Your task to perform on an android device: Clear the shopping cart on target.com. Search for "macbook pro 15 inch" on target.com, select the first entry, add it to the cart, then select checkout. Image 0: 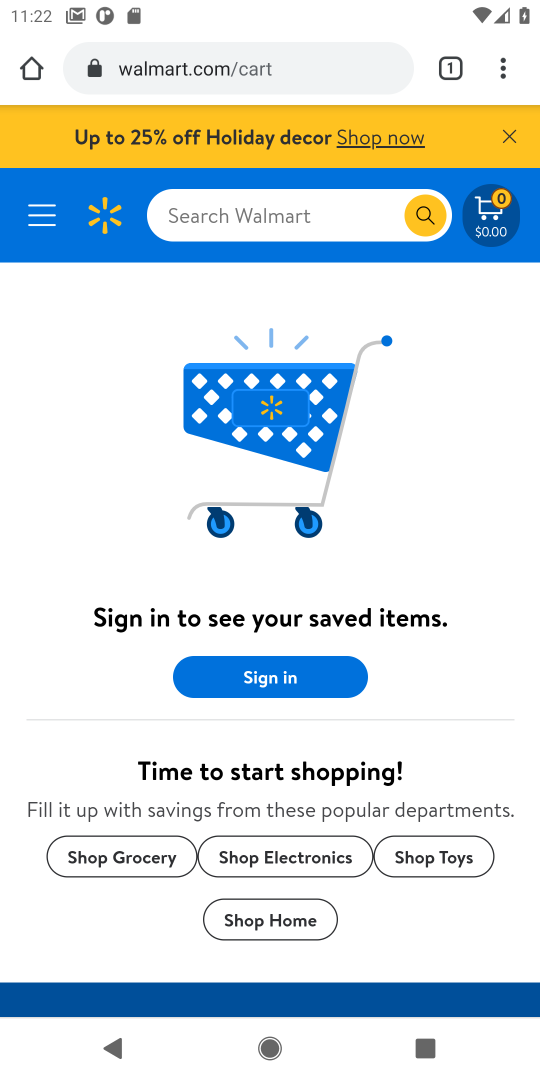
Step 0: click (197, 73)
Your task to perform on an android device: Clear the shopping cart on target.com. Search for "macbook pro 15 inch" on target.com, select the first entry, add it to the cart, then select checkout. Image 1: 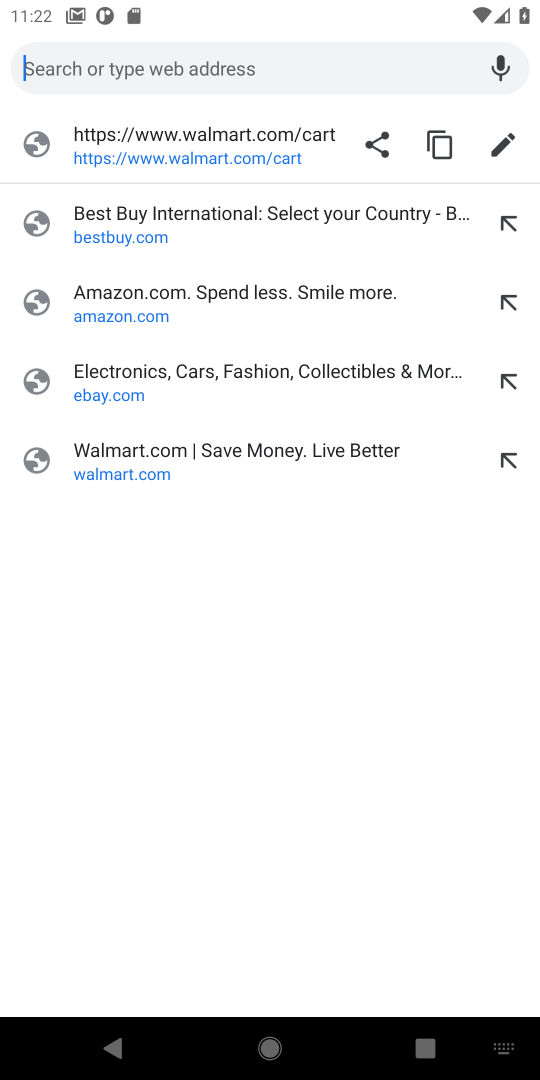
Step 1: type "target.com"
Your task to perform on an android device: Clear the shopping cart on target.com. Search for "macbook pro 15 inch" on target.com, select the first entry, add it to the cart, then select checkout. Image 2: 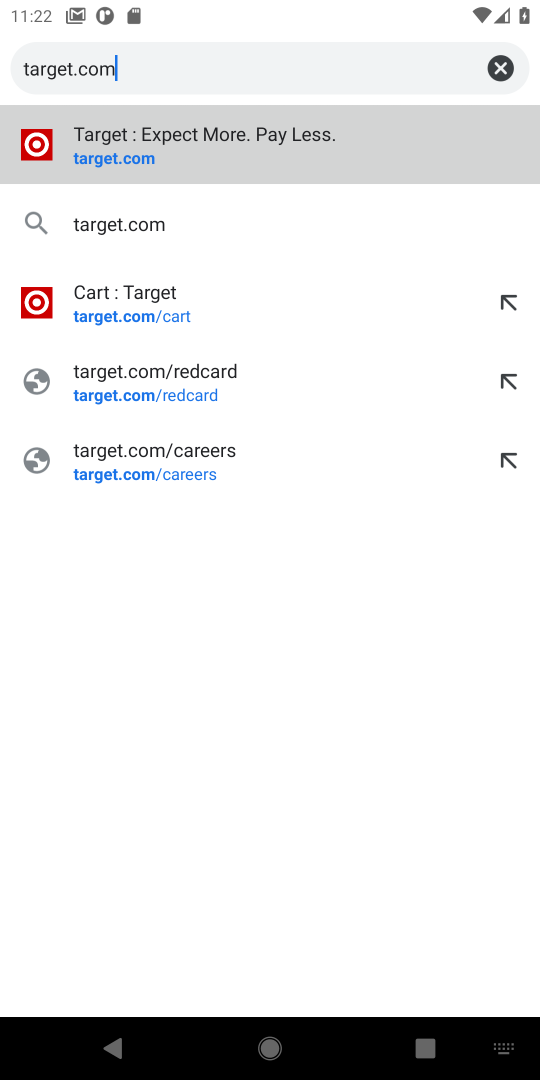
Step 2: click (113, 168)
Your task to perform on an android device: Clear the shopping cart on target.com. Search for "macbook pro 15 inch" on target.com, select the first entry, add it to the cart, then select checkout. Image 3: 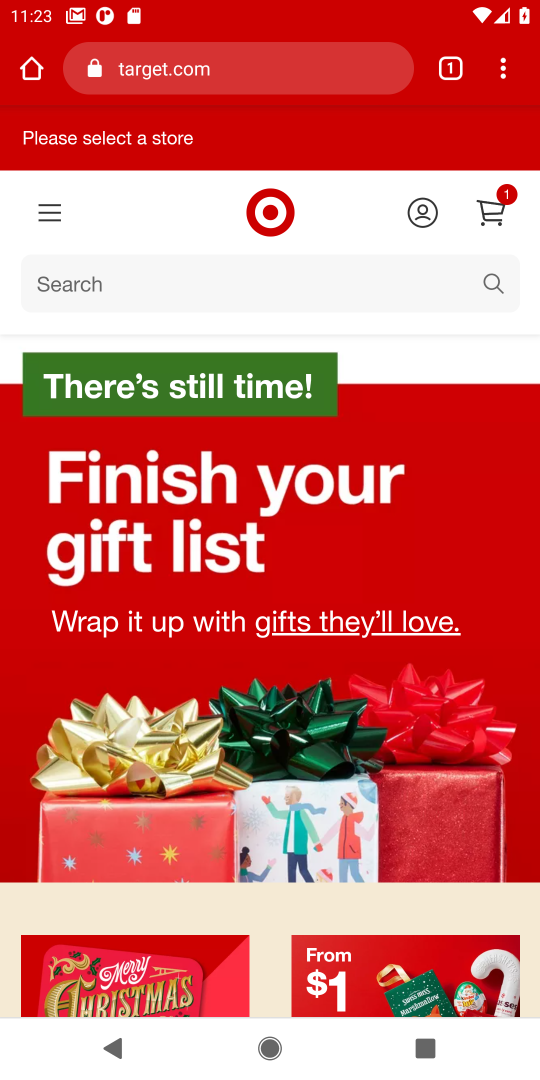
Step 3: click (494, 216)
Your task to perform on an android device: Clear the shopping cart on target.com. Search for "macbook pro 15 inch" on target.com, select the first entry, add it to the cart, then select checkout. Image 4: 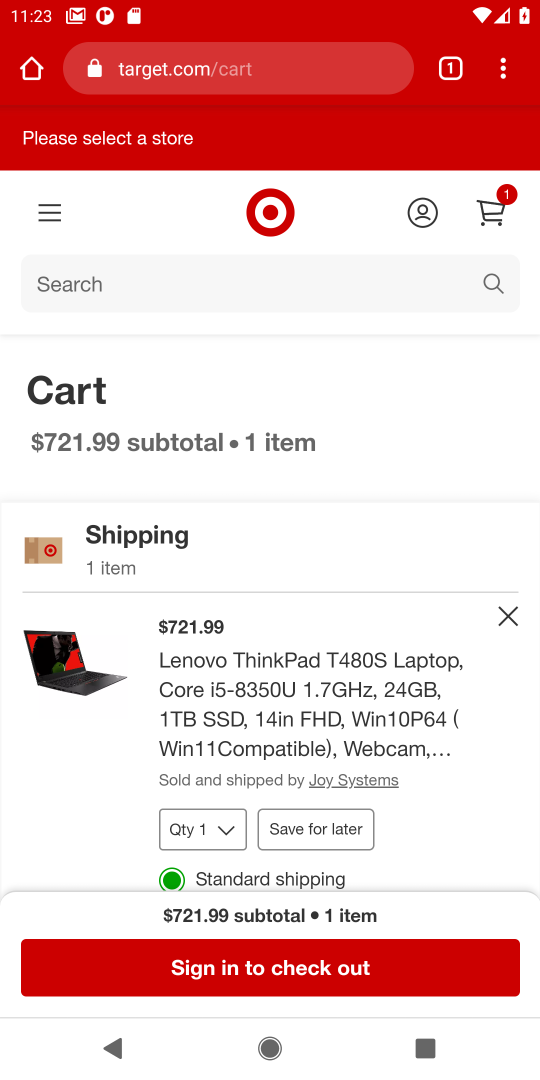
Step 4: click (501, 624)
Your task to perform on an android device: Clear the shopping cart on target.com. Search for "macbook pro 15 inch" on target.com, select the first entry, add it to the cart, then select checkout. Image 5: 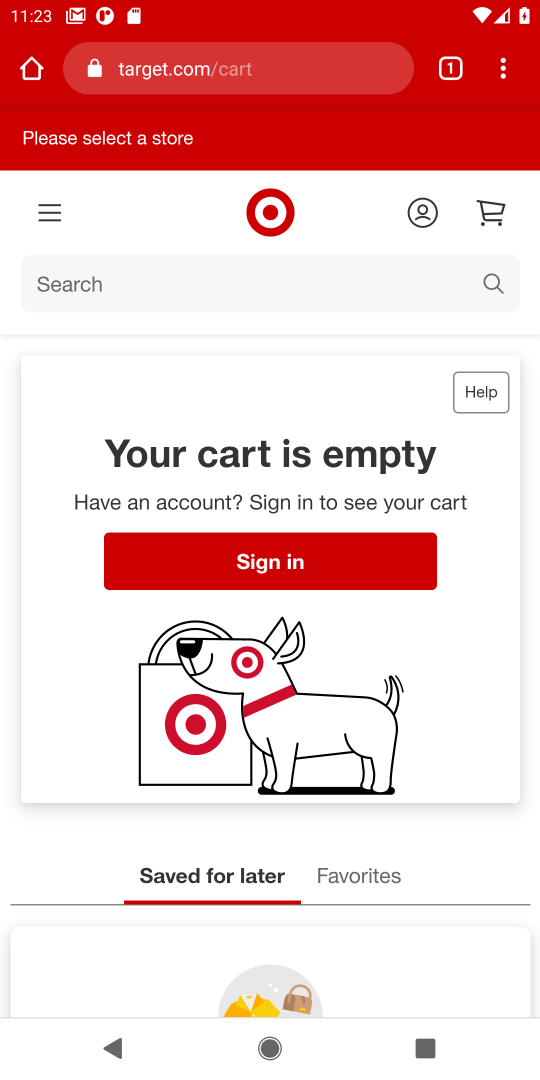
Step 5: click (82, 289)
Your task to perform on an android device: Clear the shopping cart on target.com. Search for "macbook pro 15 inch" on target.com, select the first entry, add it to the cart, then select checkout. Image 6: 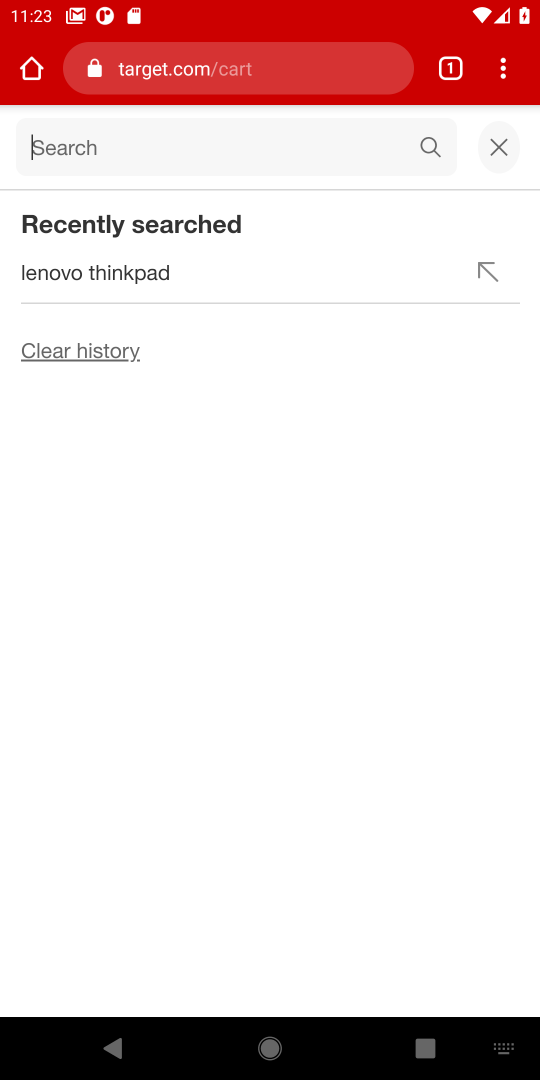
Step 6: type "macbook pro 15 inch"
Your task to perform on an android device: Clear the shopping cart on target.com. Search for "macbook pro 15 inch" on target.com, select the first entry, add it to the cart, then select checkout. Image 7: 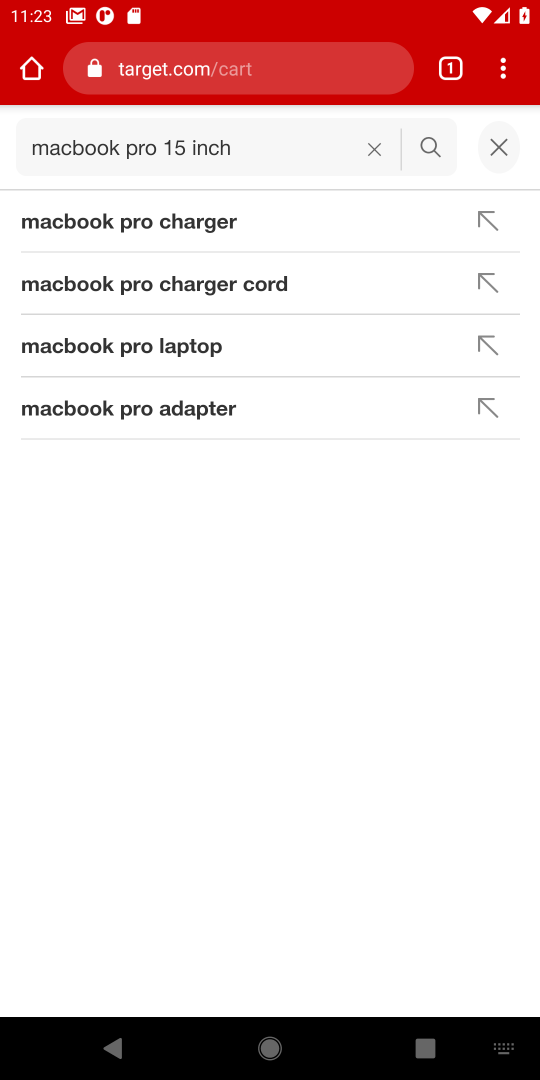
Step 7: click (434, 151)
Your task to perform on an android device: Clear the shopping cart on target.com. Search for "macbook pro 15 inch" on target.com, select the first entry, add it to the cart, then select checkout. Image 8: 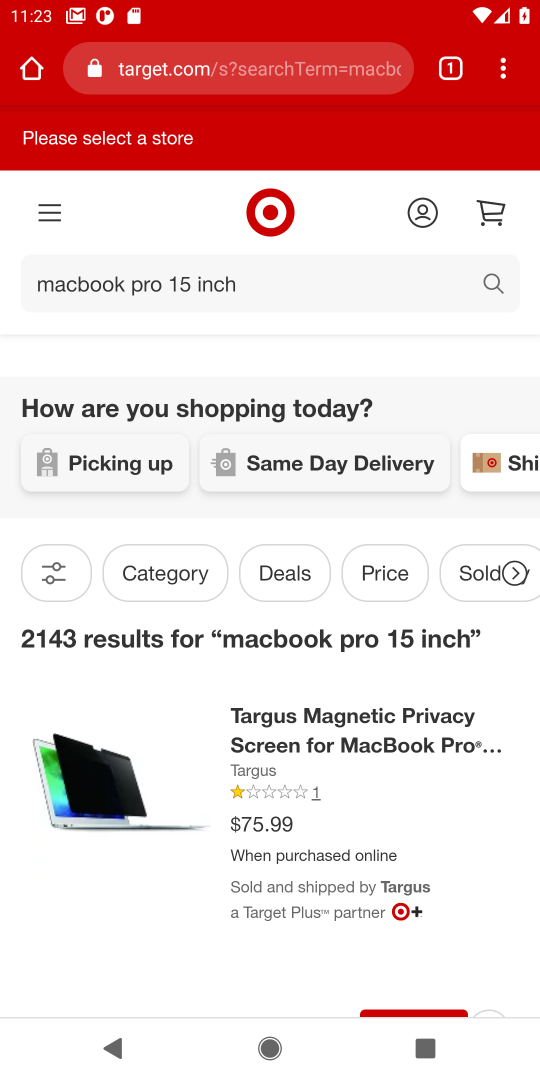
Step 8: drag from (189, 735) to (193, 455)
Your task to perform on an android device: Clear the shopping cart on target.com. Search for "macbook pro 15 inch" on target.com, select the first entry, add it to the cart, then select checkout. Image 9: 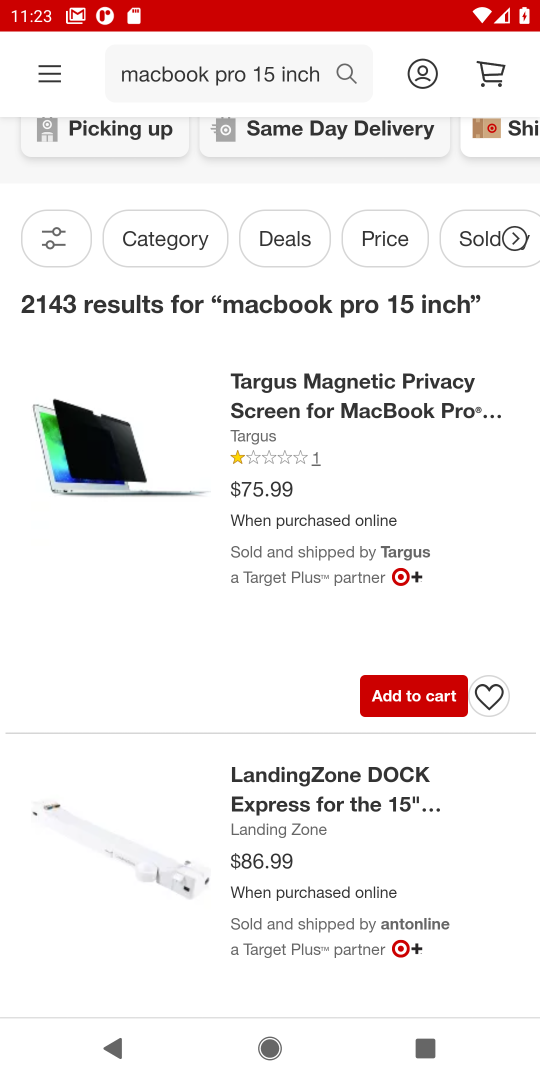
Step 9: click (355, 417)
Your task to perform on an android device: Clear the shopping cart on target.com. Search for "macbook pro 15 inch" on target.com, select the first entry, add it to the cart, then select checkout. Image 10: 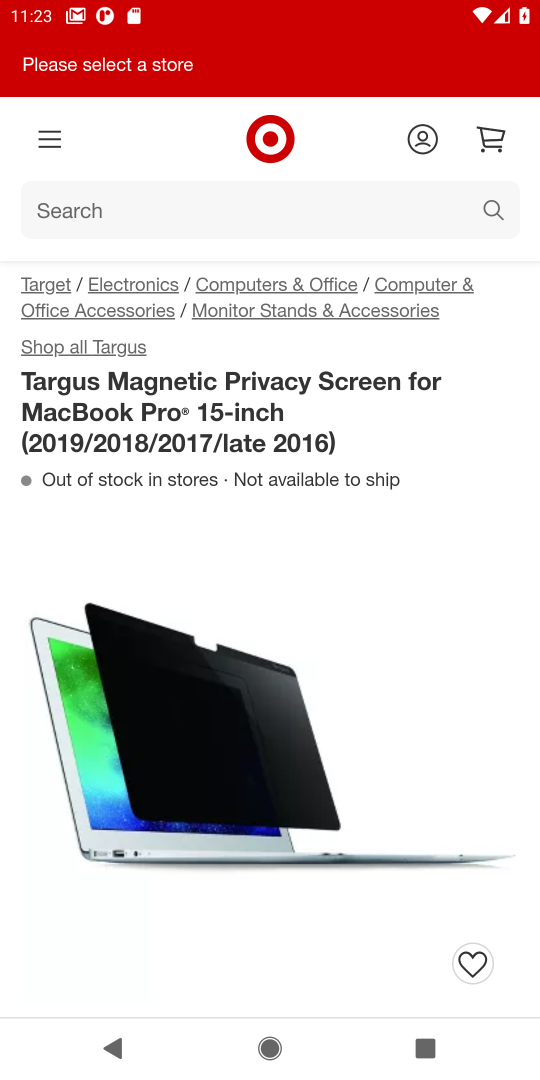
Step 10: drag from (297, 743) to (289, 482)
Your task to perform on an android device: Clear the shopping cart on target.com. Search for "macbook pro 15 inch" on target.com, select the first entry, add it to the cart, then select checkout. Image 11: 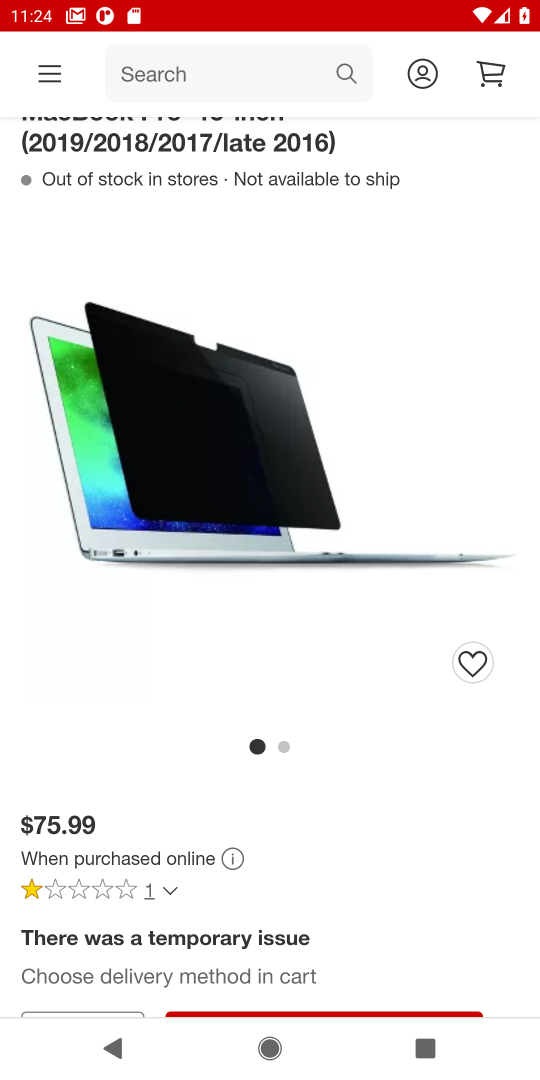
Step 11: drag from (287, 845) to (282, 507)
Your task to perform on an android device: Clear the shopping cart on target.com. Search for "macbook pro 15 inch" on target.com, select the first entry, add it to the cart, then select checkout. Image 12: 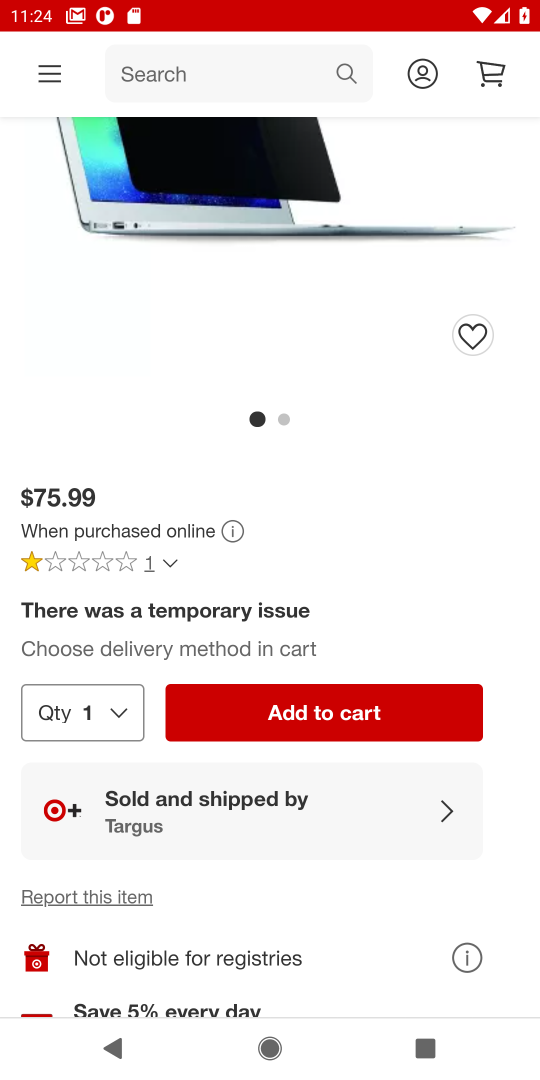
Step 12: click (316, 721)
Your task to perform on an android device: Clear the shopping cart on target.com. Search for "macbook pro 15 inch" on target.com, select the first entry, add it to the cart, then select checkout. Image 13: 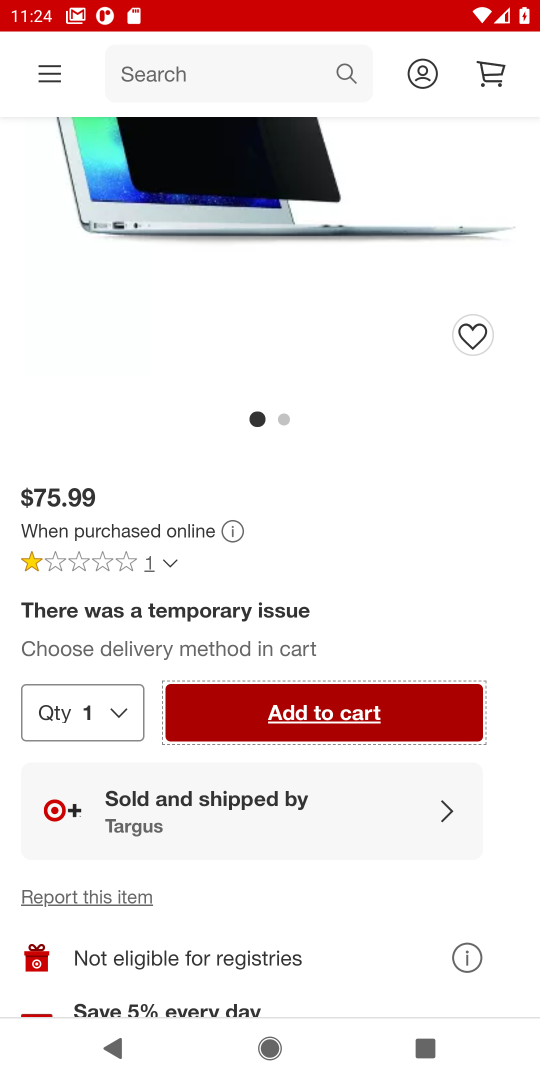
Step 13: click (324, 714)
Your task to perform on an android device: Clear the shopping cart on target.com. Search for "macbook pro 15 inch" on target.com, select the first entry, add it to the cart, then select checkout. Image 14: 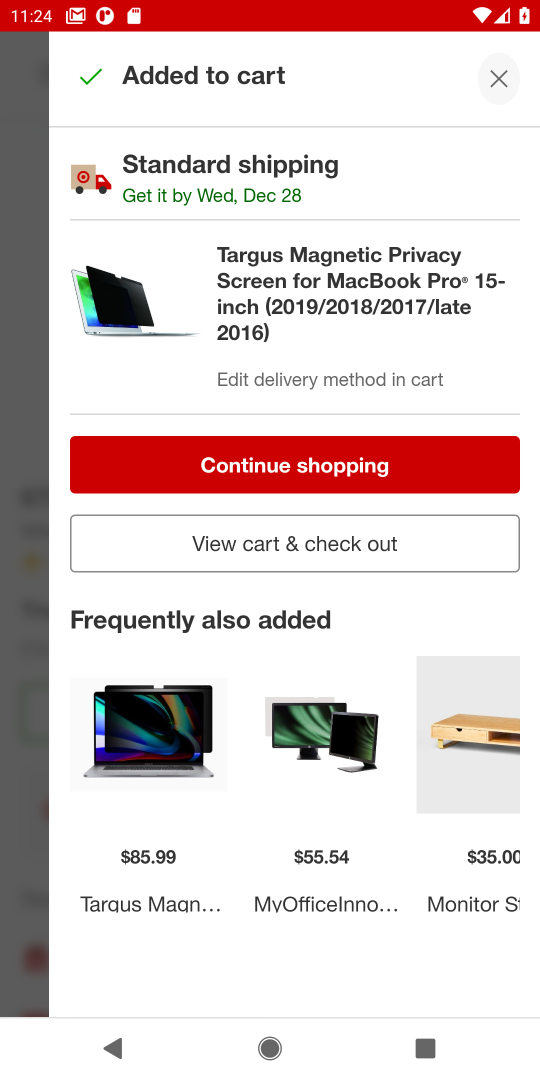
Step 14: click (280, 539)
Your task to perform on an android device: Clear the shopping cart on target.com. Search for "macbook pro 15 inch" on target.com, select the first entry, add it to the cart, then select checkout. Image 15: 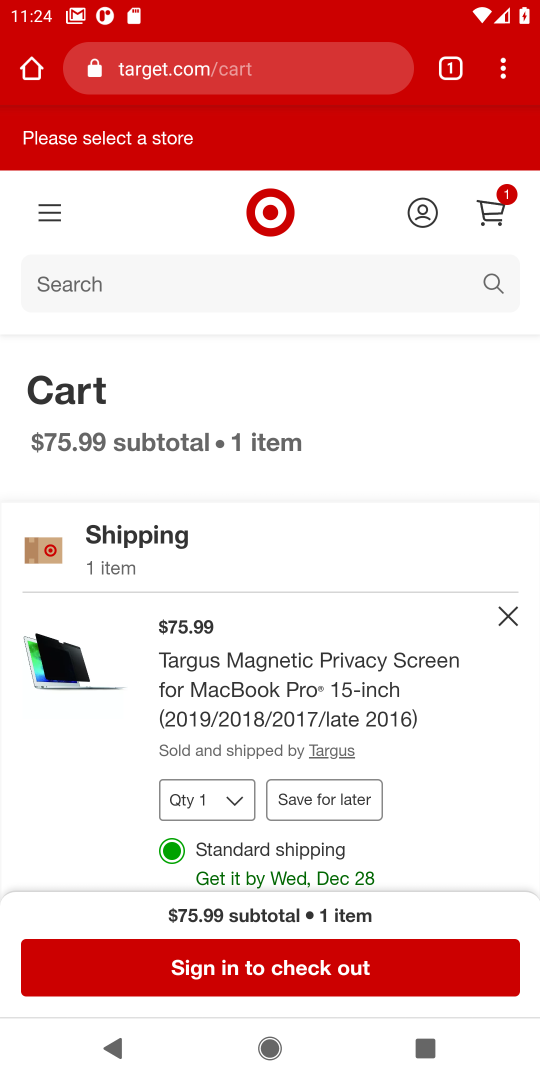
Step 15: click (270, 982)
Your task to perform on an android device: Clear the shopping cart on target.com. Search for "macbook pro 15 inch" on target.com, select the first entry, add it to the cart, then select checkout. Image 16: 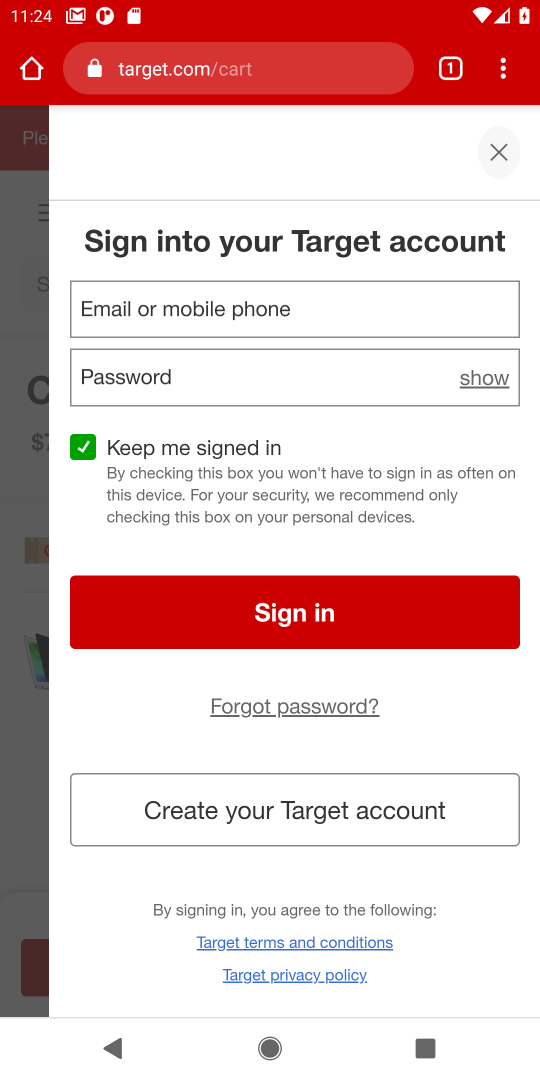
Step 16: task complete